Your task to perform on an android device: turn off priority inbox in the gmail app Image 0: 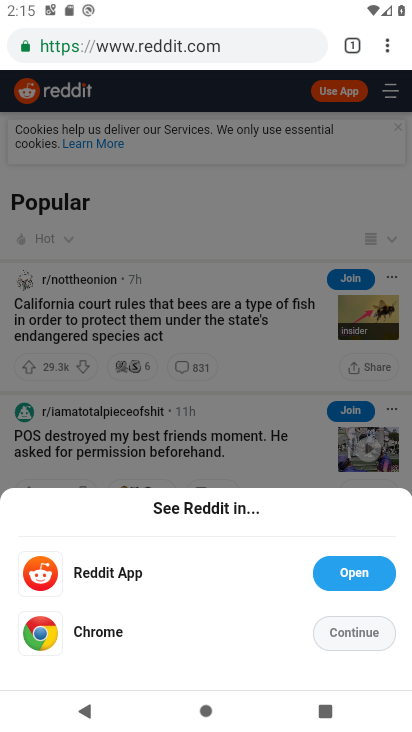
Step 0: press home button
Your task to perform on an android device: turn off priority inbox in the gmail app Image 1: 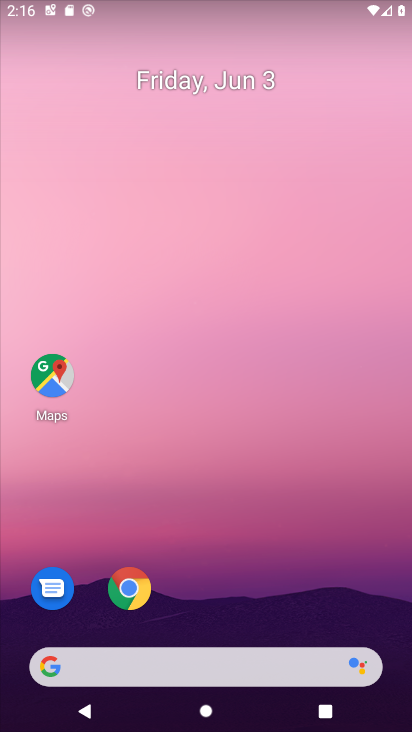
Step 1: drag from (282, 406) to (253, 5)
Your task to perform on an android device: turn off priority inbox in the gmail app Image 2: 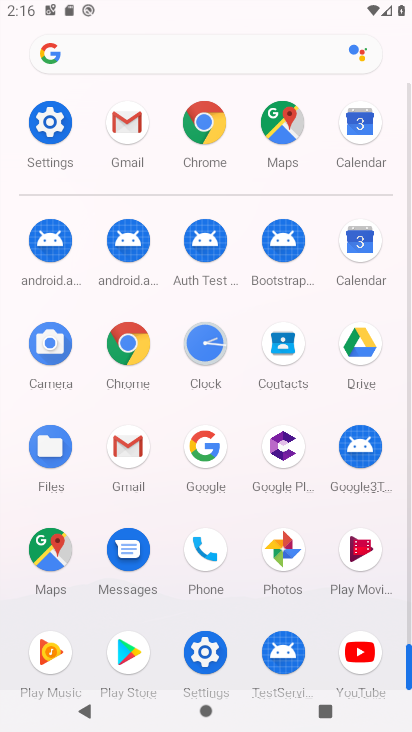
Step 2: click (121, 144)
Your task to perform on an android device: turn off priority inbox in the gmail app Image 3: 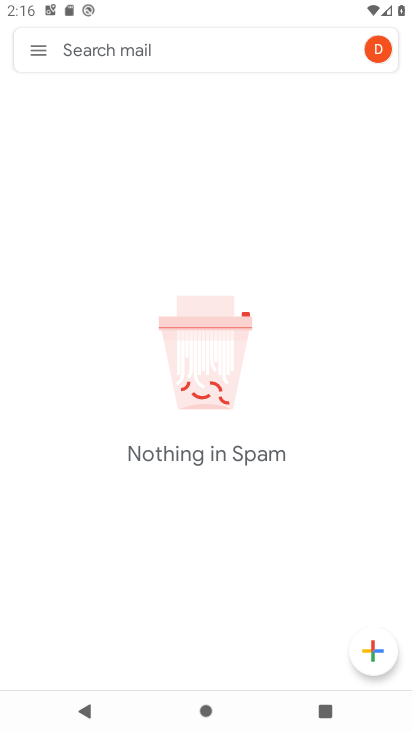
Step 3: click (39, 50)
Your task to perform on an android device: turn off priority inbox in the gmail app Image 4: 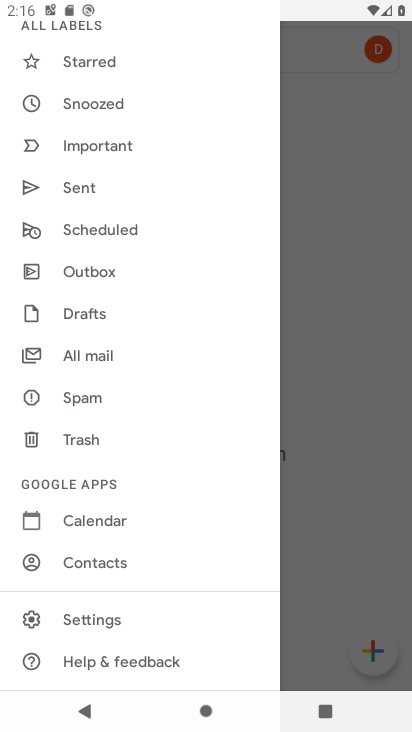
Step 4: drag from (76, 554) to (114, 192)
Your task to perform on an android device: turn off priority inbox in the gmail app Image 5: 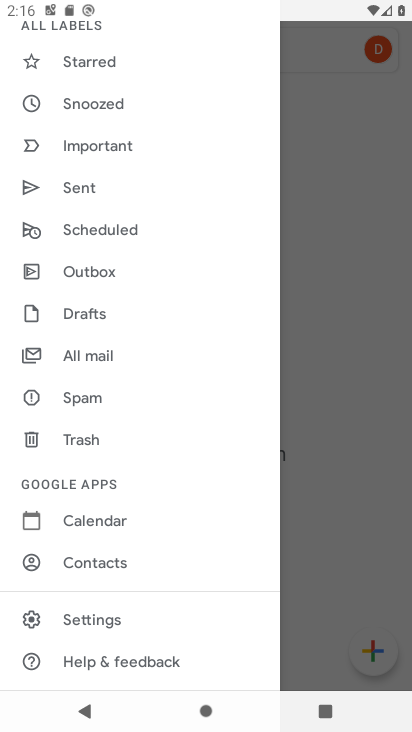
Step 5: click (86, 621)
Your task to perform on an android device: turn off priority inbox in the gmail app Image 6: 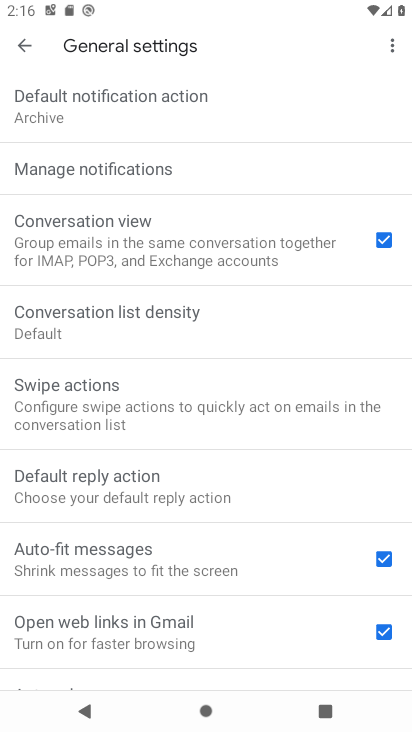
Step 6: click (35, 50)
Your task to perform on an android device: turn off priority inbox in the gmail app Image 7: 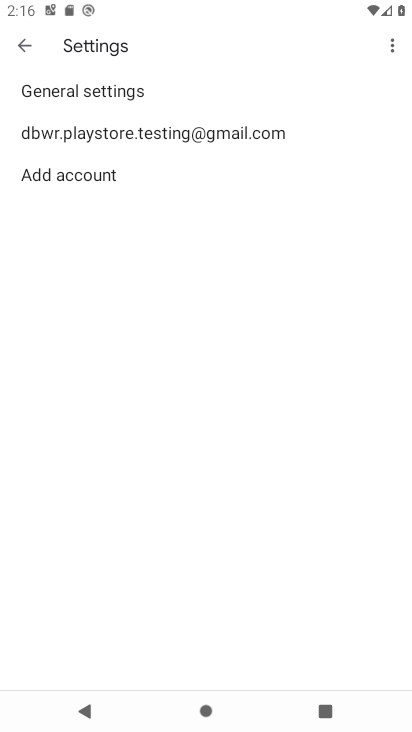
Step 7: click (85, 140)
Your task to perform on an android device: turn off priority inbox in the gmail app Image 8: 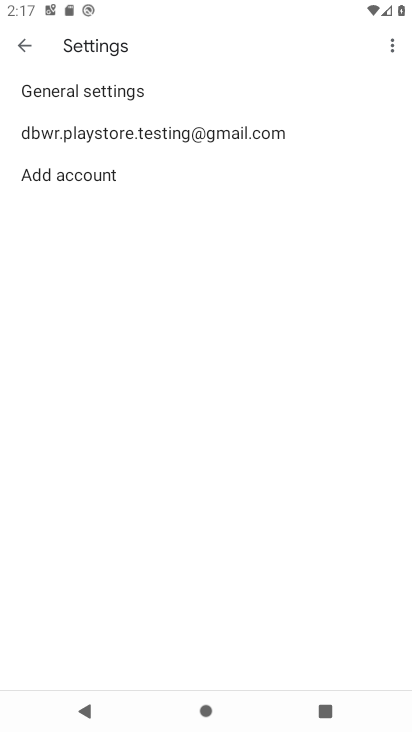
Step 8: click (77, 130)
Your task to perform on an android device: turn off priority inbox in the gmail app Image 9: 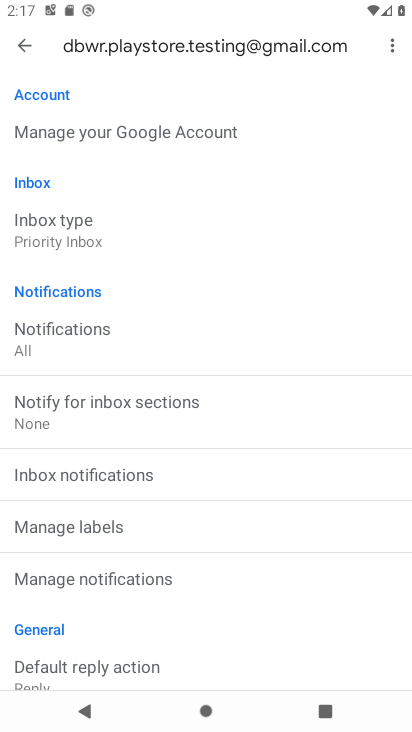
Step 9: drag from (106, 514) to (106, 297)
Your task to perform on an android device: turn off priority inbox in the gmail app Image 10: 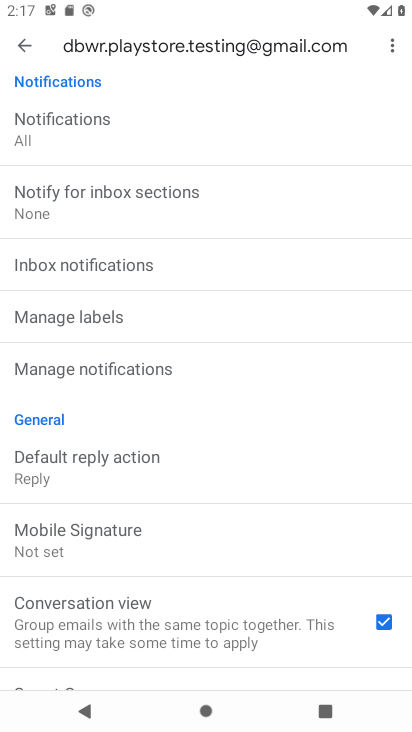
Step 10: drag from (186, 514) to (250, 223)
Your task to perform on an android device: turn off priority inbox in the gmail app Image 11: 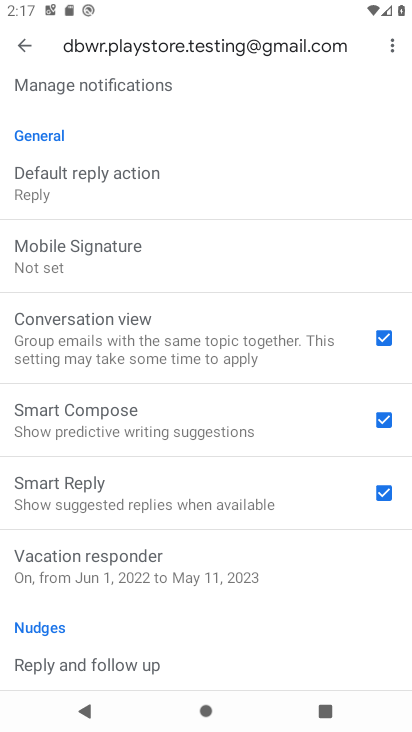
Step 11: drag from (178, 239) to (184, 692)
Your task to perform on an android device: turn off priority inbox in the gmail app Image 12: 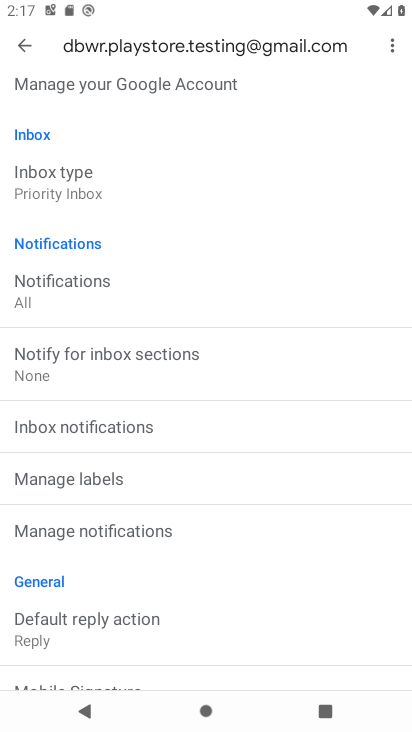
Step 12: click (118, 176)
Your task to perform on an android device: turn off priority inbox in the gmail app Image 13: 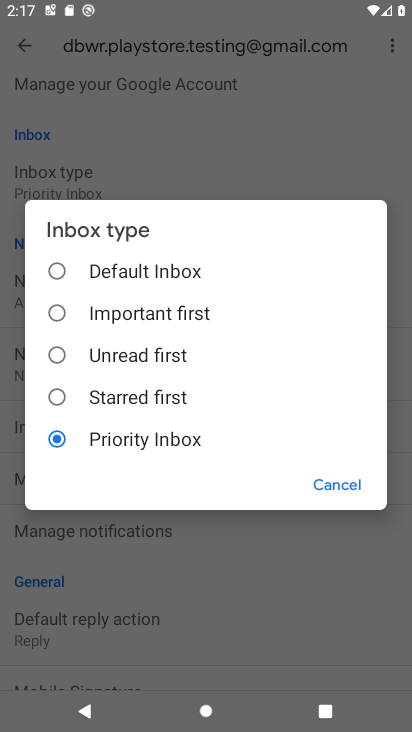
Step 13: click (128, 316)
Your task to perform on an android device: turn off priority inbox in the gmail app Image 14: 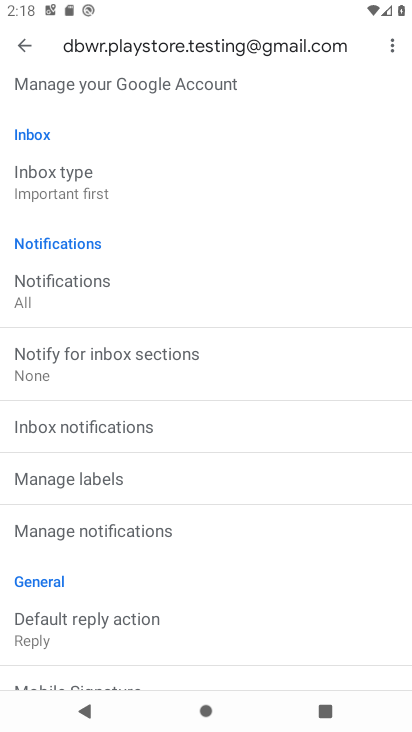
Step 14: task complete